Your task to perform on an android device: Go to Amazon Image 0: 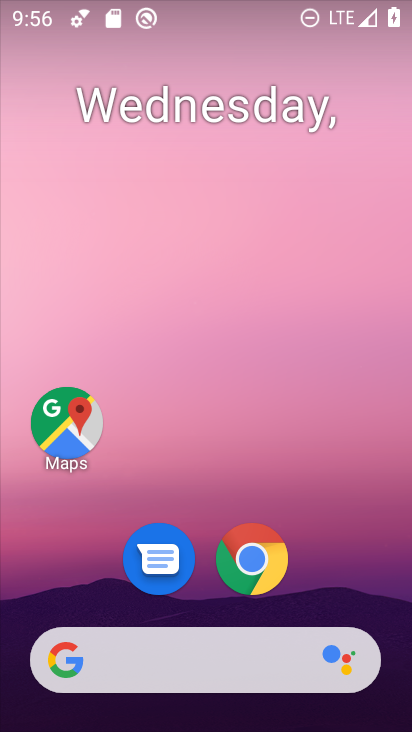
Step 0: click (244, 547)
Your task to perform on an android device: Go to Amazon Image 1: 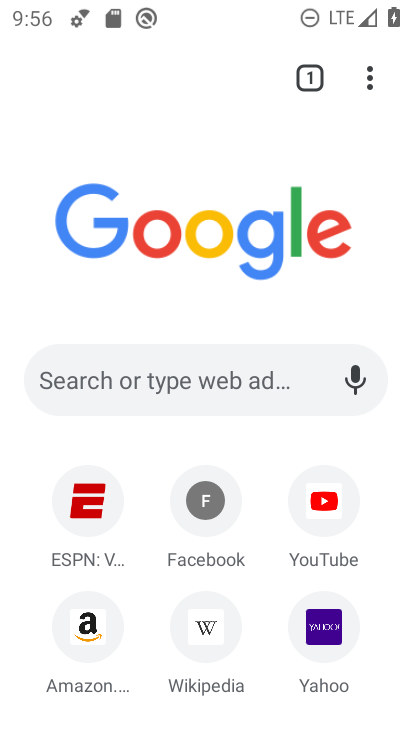
Step 1: click (105, 619)
Your task to perform on an android device: Go to Amazon Image 2: 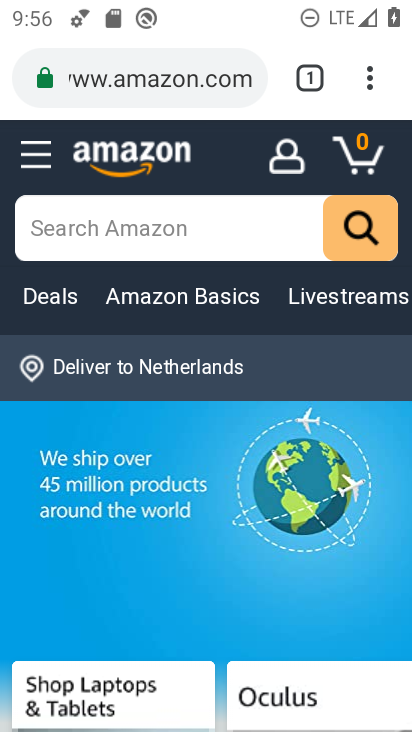
Step 2: task complete